Your task to perform on an android device: toggle notification dots Image 0: 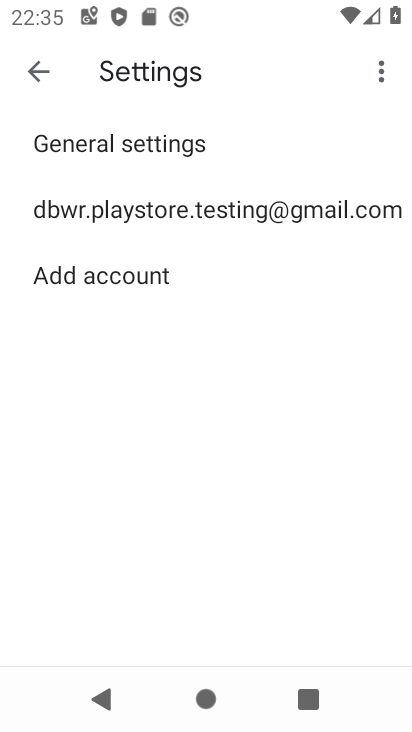
Step 0: press home button
Your task to perform on an android device: toggle notification dots Image 1: 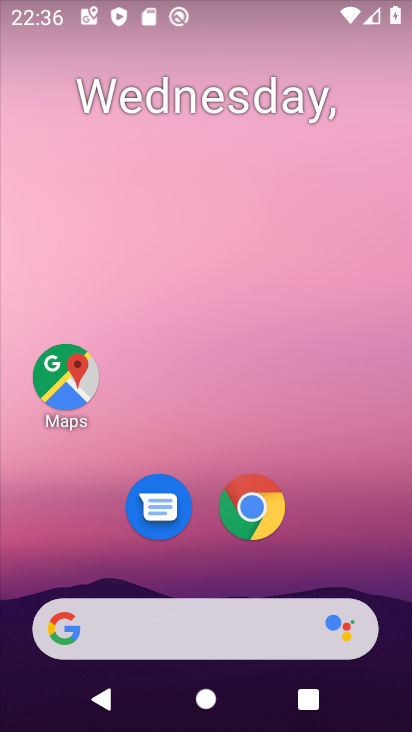
Step 1: drag from (305, 525) to (327, 266)
Your task to perform on an android device: toggle notification dots Image 2: 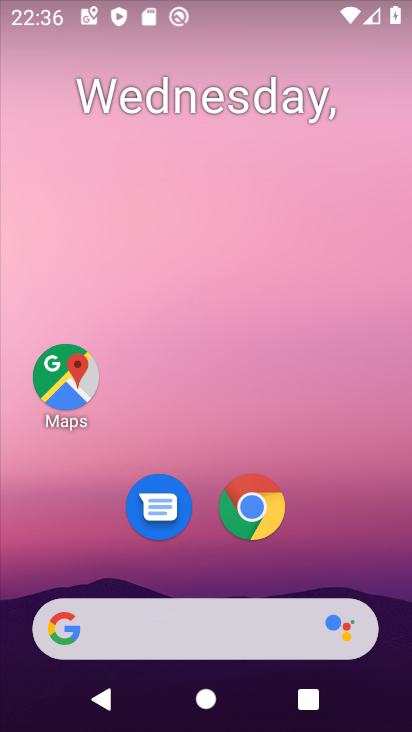
Step 2: drag from (294, 504) to (316, 257)
Your task to perform on an android device: toggle notification dots Image 3: 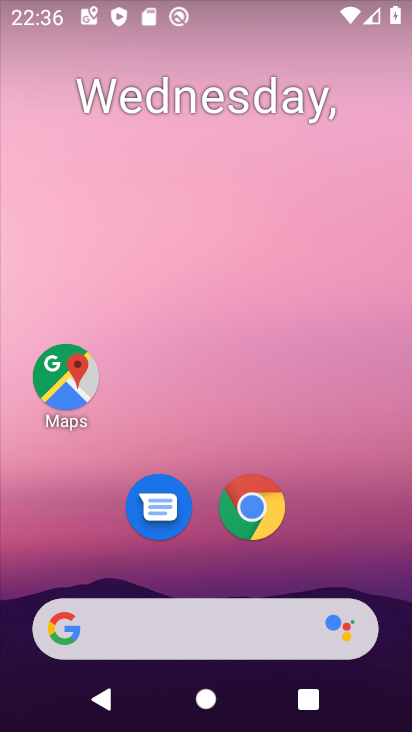
Step 3: drag from (256, 557) to (252, 210)
Your task to perform on an android device: toggle notification dots Image 4: 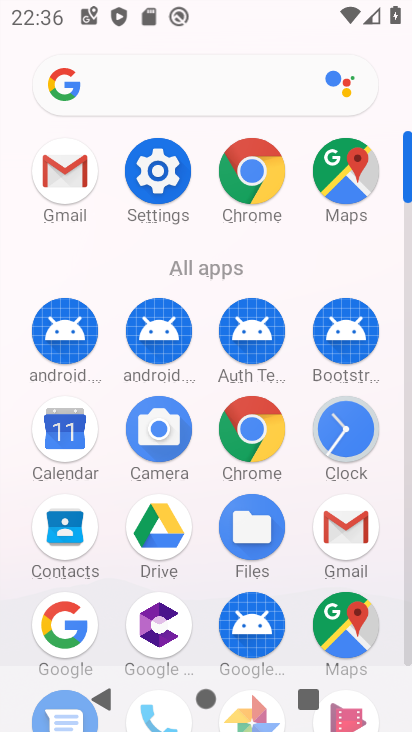
Step 4: click (159, 153)
Your task to perform on an android device: toggle notification dots Image 5: 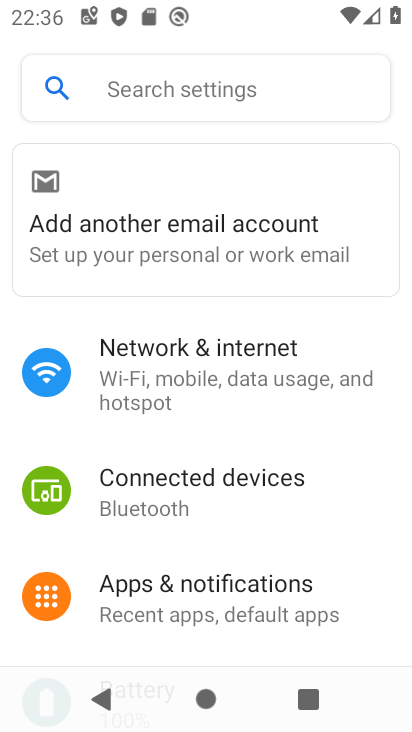
Step 5: click (157, 83)
Your task to perform on an android device: toggle notification dots Image 6: 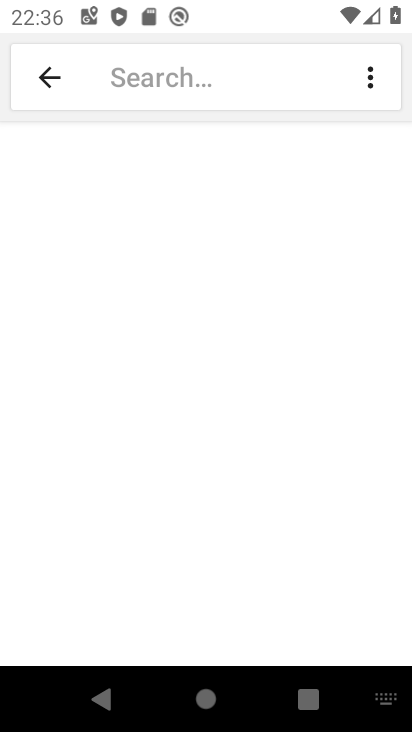
Step 6: click (171, 84)
Your task to perform on an android device: toggle notification dots Image 7: 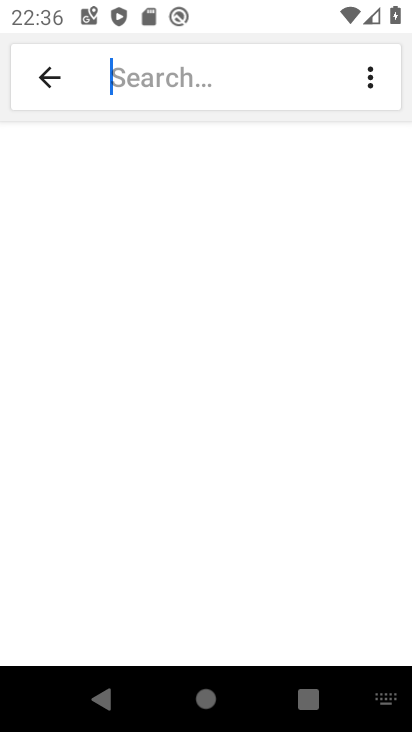
Step 7: type "notification dots"
Your task to perform on an android device: toggle notification dots Image 8: 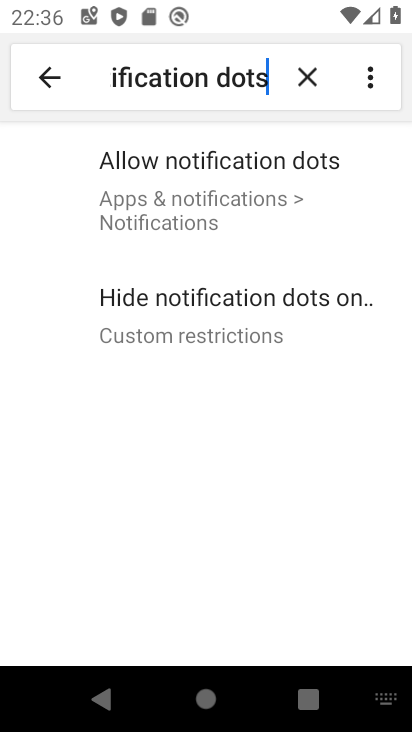
Step 8: click (196, 181)
Your task to perform on an android device: toggle notification dots Image 9: 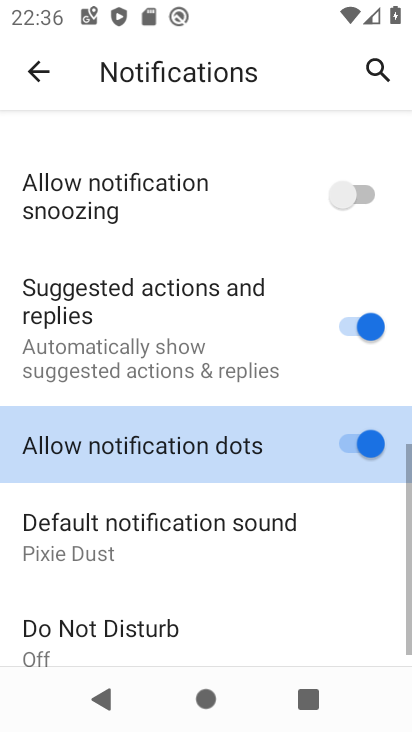
Step 9: click (336, 432)
Your task to perform on an android device: toggle notification dots Image 10: 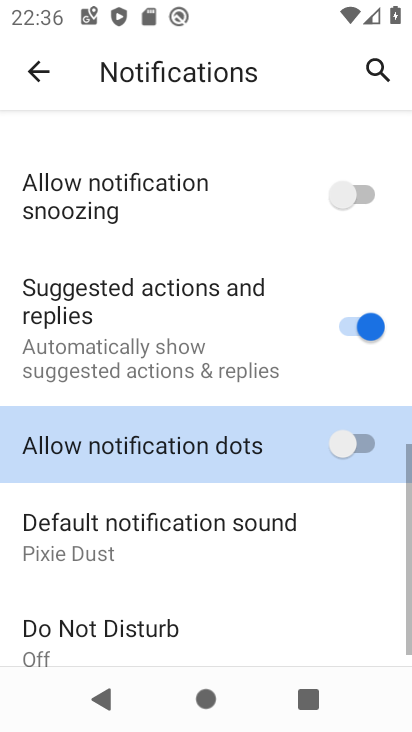
Step 10: task complete